Your task to perform on an android device: Go to Amazon Image 0: 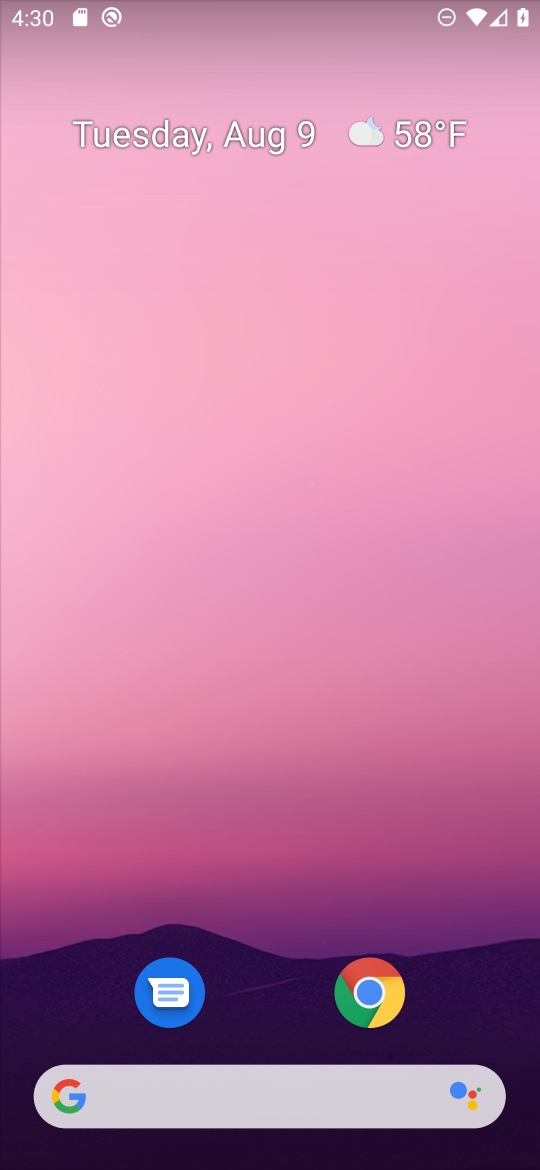
Step 0: drag from (198, 1110) to (224, 214)
Your task to perform on an android device: Go to Amazon Image 1: 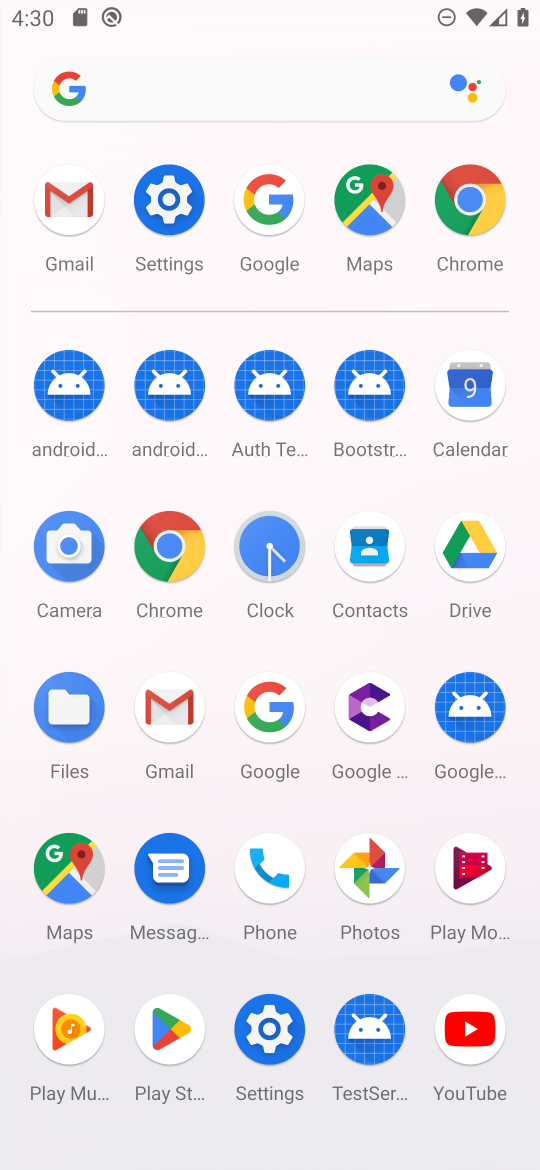
Step 1: click (180, 559)
Your task to perform on an android device: Go to Amazon Image 2: 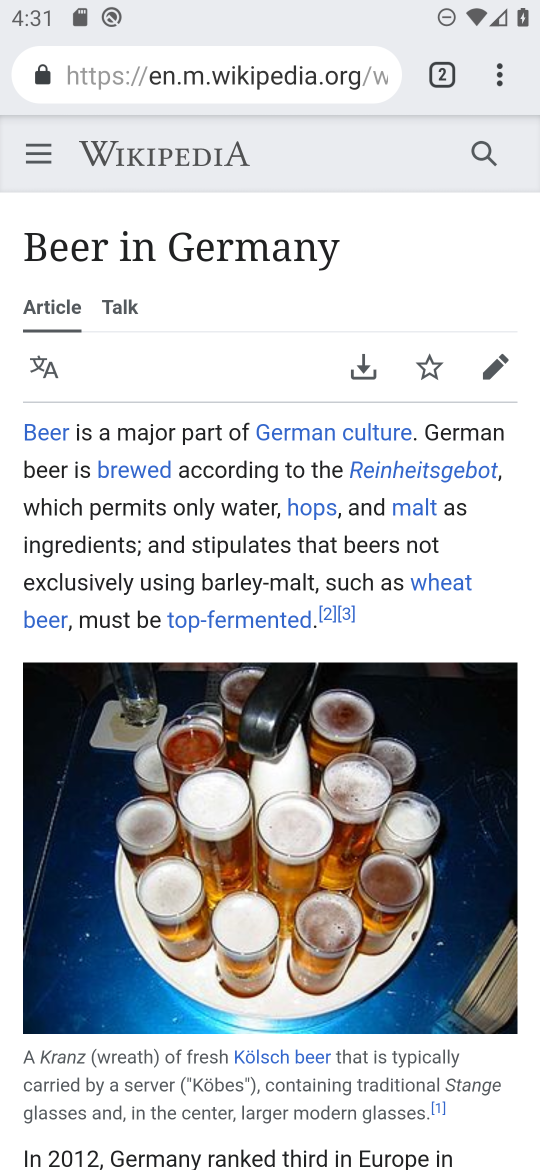
Step 2: click (493, 69)
Your task to perform on an android device: Go to Amazon Image 3: 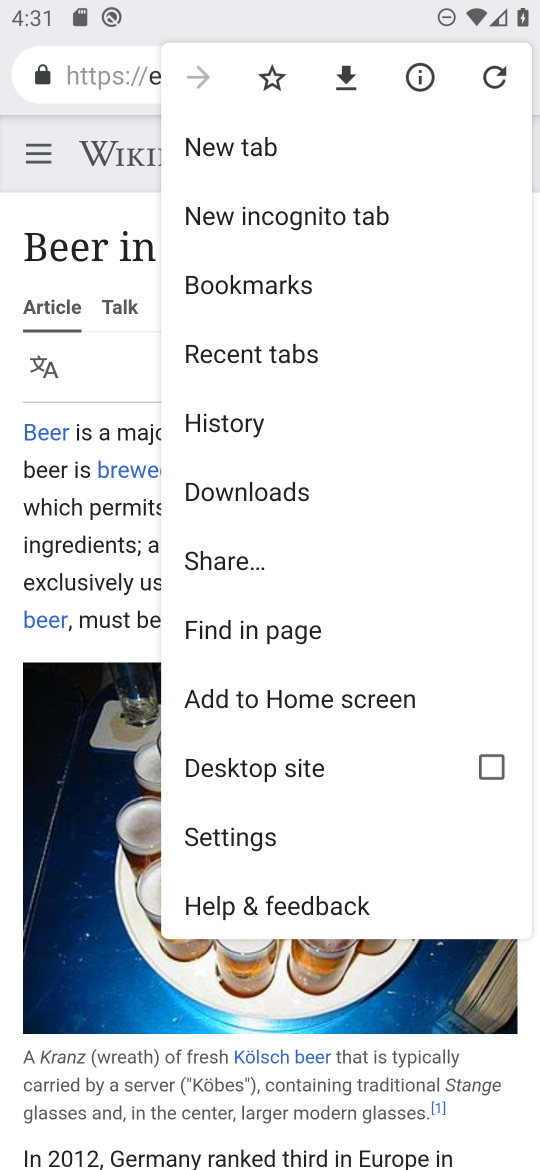
Step 3: click (343, 137)
Your task to perform on an android device: Go to Amazon Image 4: 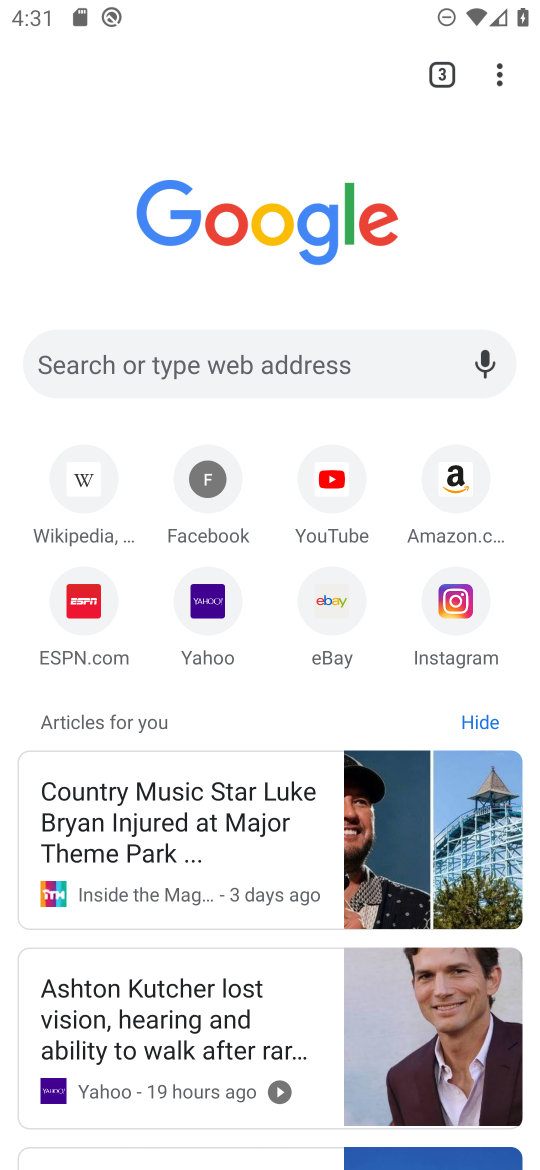
Step 4: click (463, 493)
Your task to perform on an android device: Go to Amazon Image 5: 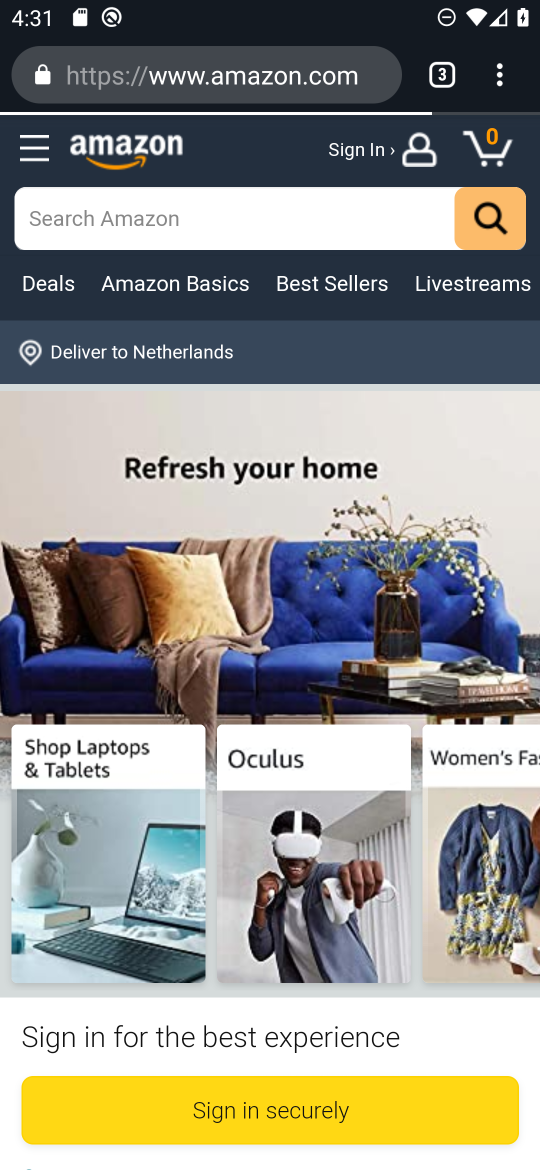
Step 5: task complete